Your task to perform on an android device: visit the assistant section in the google photos Image 0: 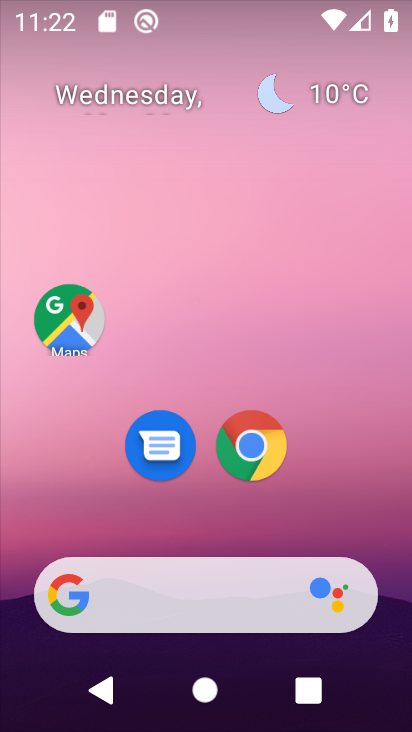
Step 0: drag from (198, 501) to (300, 22)
Your task to perform on an android device: visit the assistant section in the google photos Image 1: 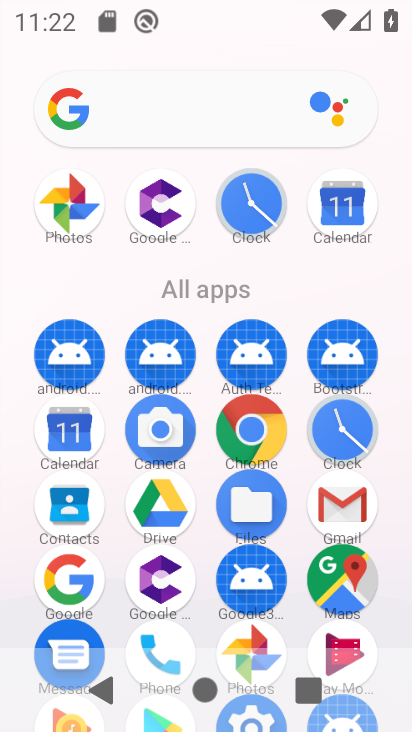
Step 1: drag from (253, 598) to (291, 188)
Your task to perform on an android device: visit the assistant section in the google photos Image 2: 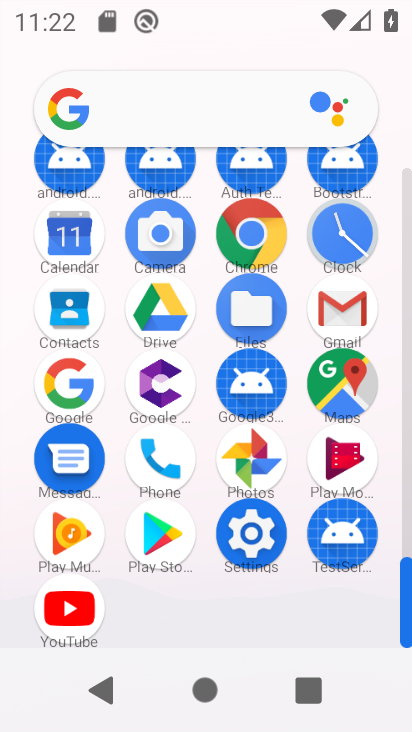
Step 2: click (261, 464)
Your task to perform on an android device: visit the assistant section in the google photos Image 3: 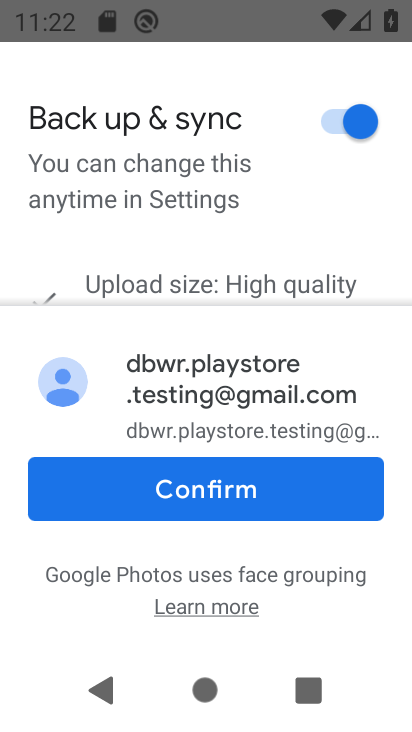
Step 3: click (215, 500)
Your task to perform on an android device: visit the assistant section in the google photos Image 4: 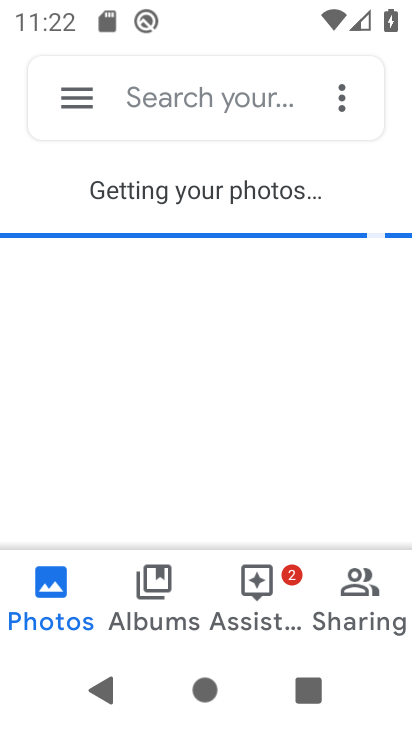
Step 4: click (261, 604)
Your task to perform on an android device: visit the assistant section in the google photos Image 5: 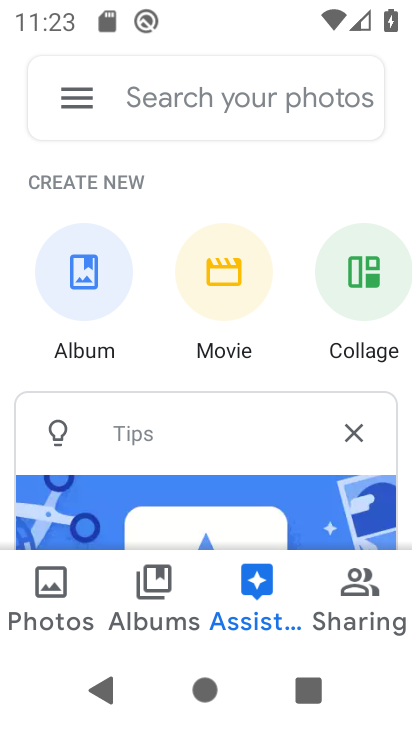
Step 5: task complete